Your task to perform on an android device: turn on wifi Image 0: 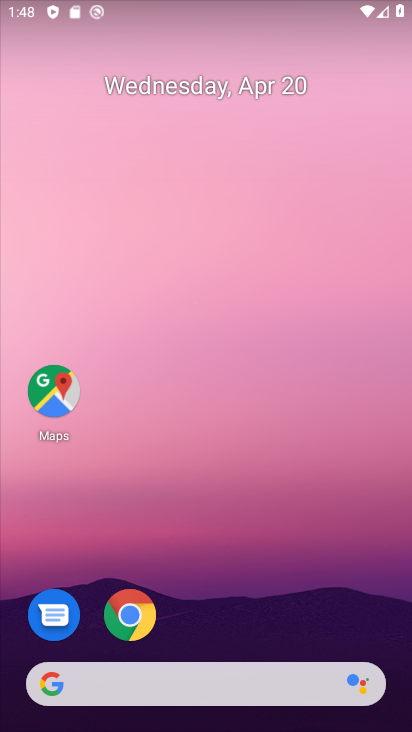
Step 0: drag from (276, 618) to (215, 21)
Your task to perform on an android device: turn on wifi Image 1: 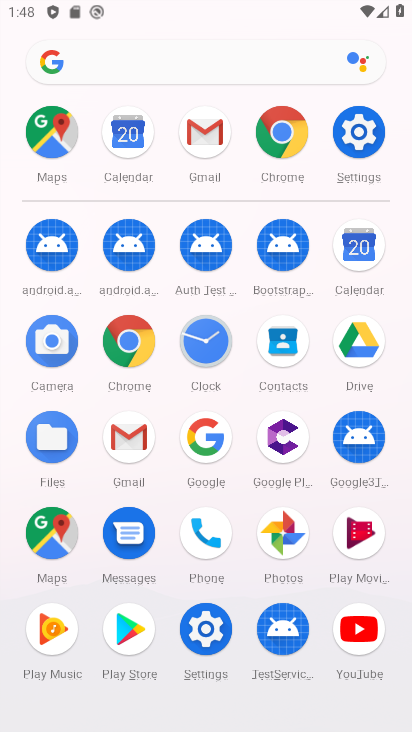
Step 1: click (352, 135)
Your task to perform on an android device: turn on wifi Image 2: 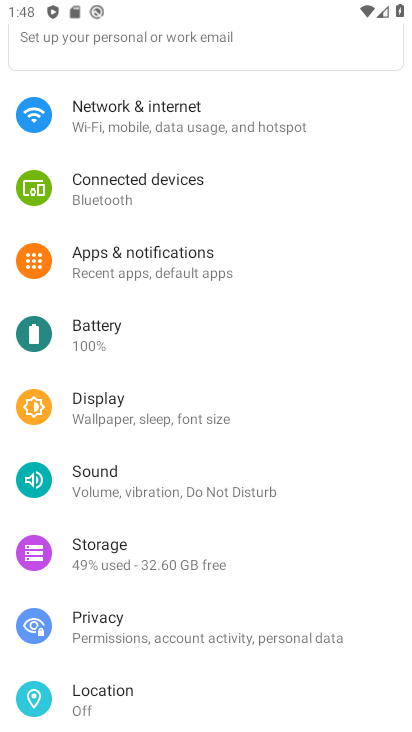
Step 2: click (215, 129)
Your task to perform on an android device: turn on wifi Image 3: 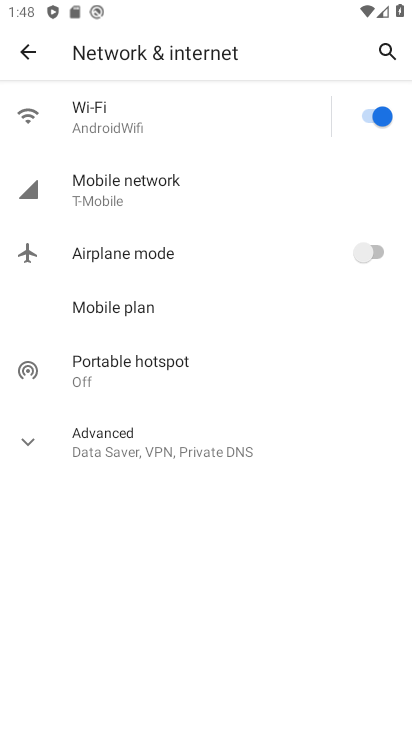
Step 3: task complete